Your task to perform on an android device: Search for Mexican restaurants on Maps Image 0: 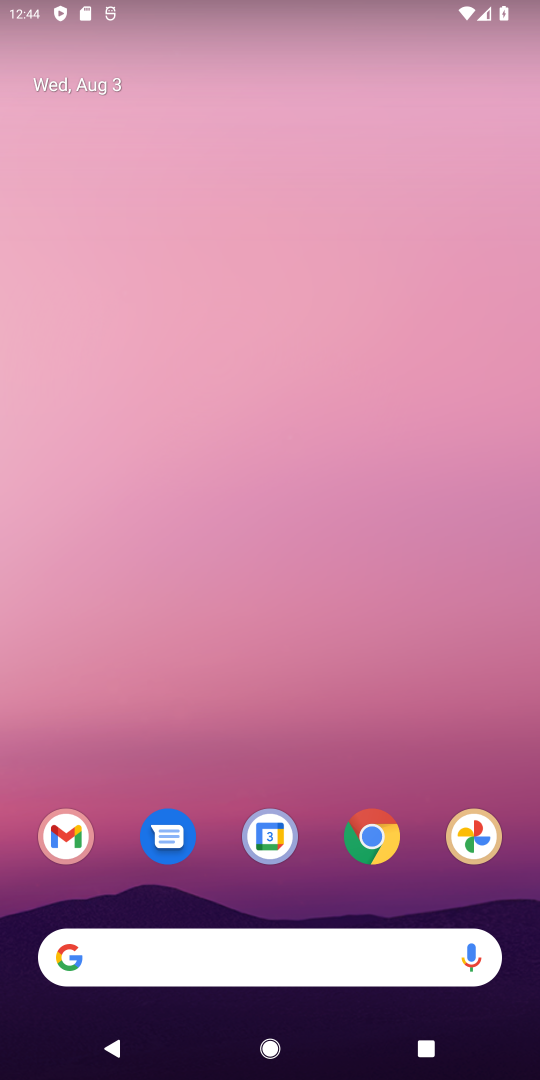
Step 0: drag from (238, 680) to (298, 279)
Your task to perform on an android device: Search for Mexican restaurants on Maps Image 1: 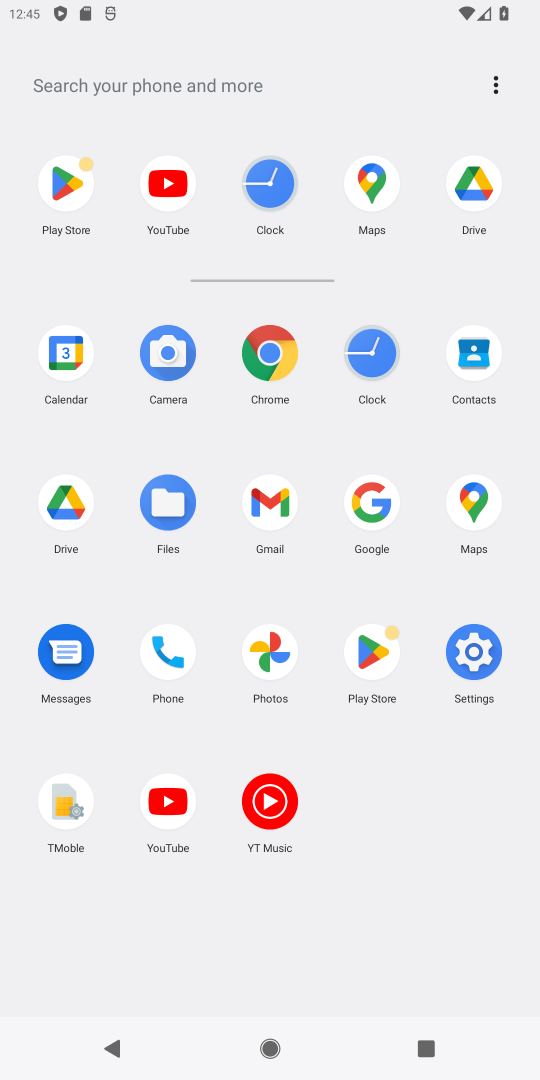
Step 1: click (471, 498)
Your task to perform on an android device: Search for Mexican restaurants on Maps Image 2: 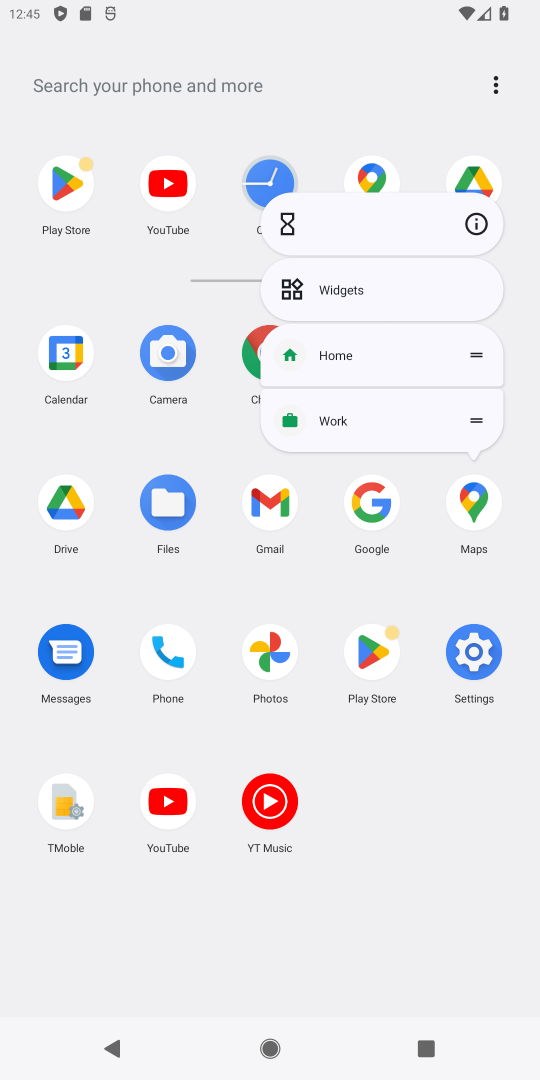
Step 2: click (471, 213)
Your task to perform on an android device: Search for Mexican restaurants on Maps Image 3: 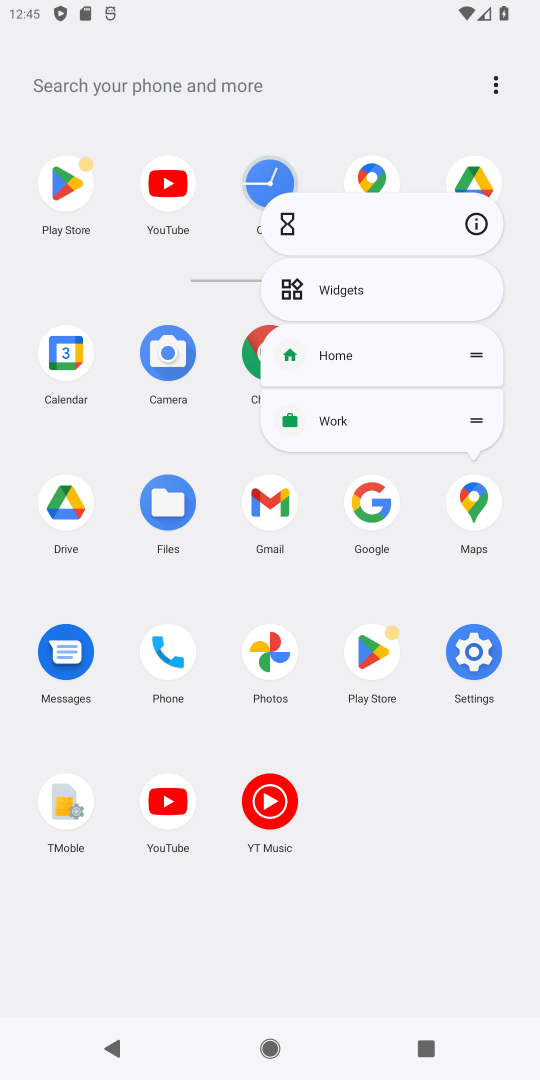
Step 3: click (468, 218)
Your task to perform on an android device: Search for Mexican restaurants on Maps Image 4: 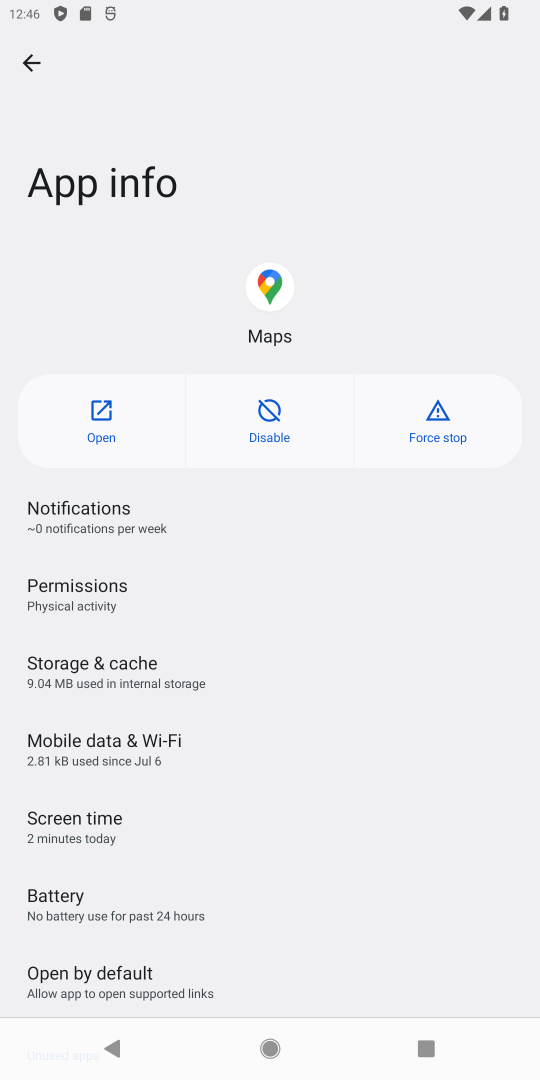
Step 4: click (120, 413)
Your task to perform on an android device: Search for Mexican restaurants on Maps Image 5: 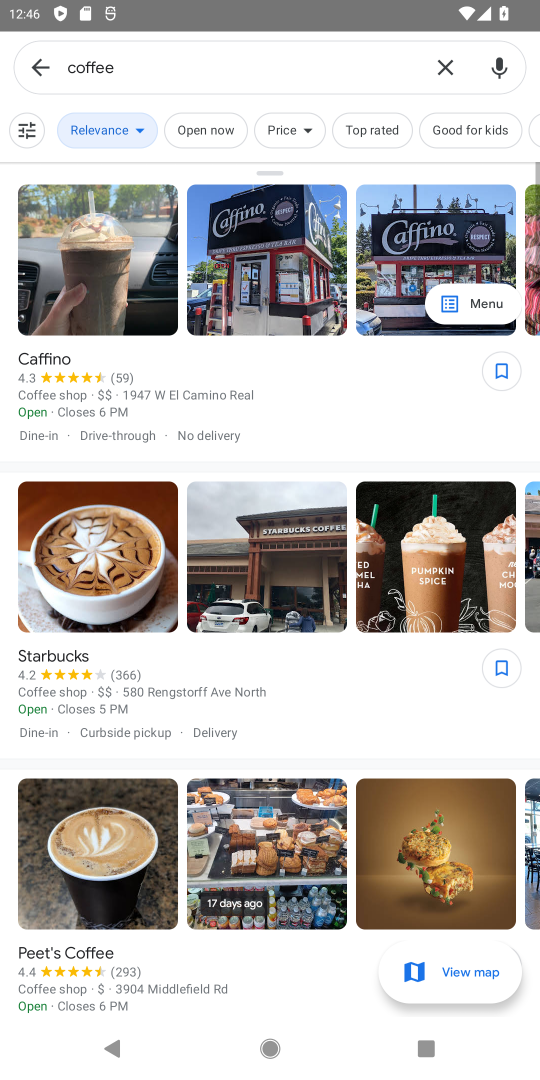
Step 5: drag from (315, 418) to (398, 810)
Your task to perform on an android device: Search for Mexican restaurants on Maps Image 6: 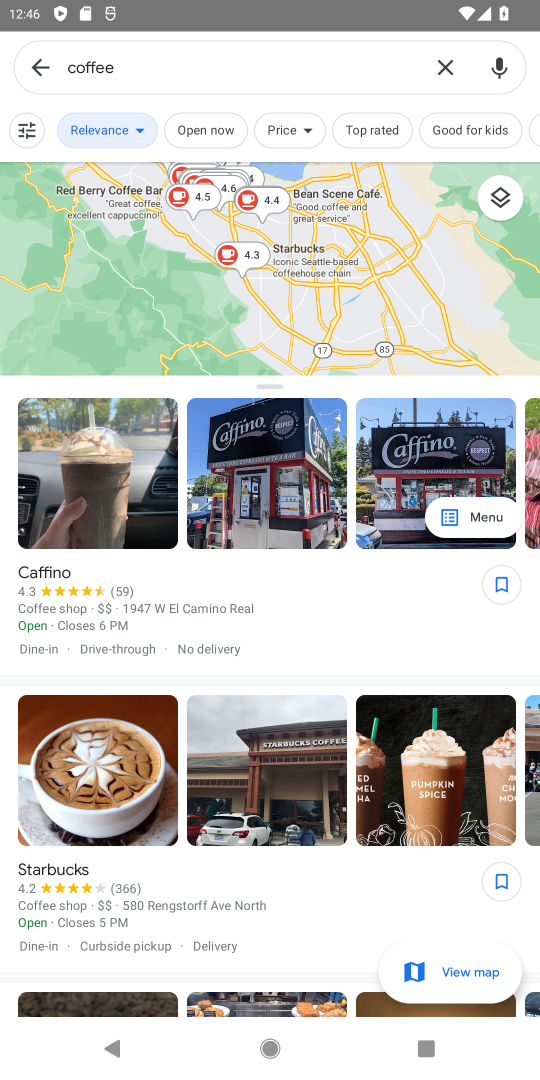
Step 6: click (439, 61)
Your task to perform on an android device: Search for Mexican restaurants on Maps Image 7: 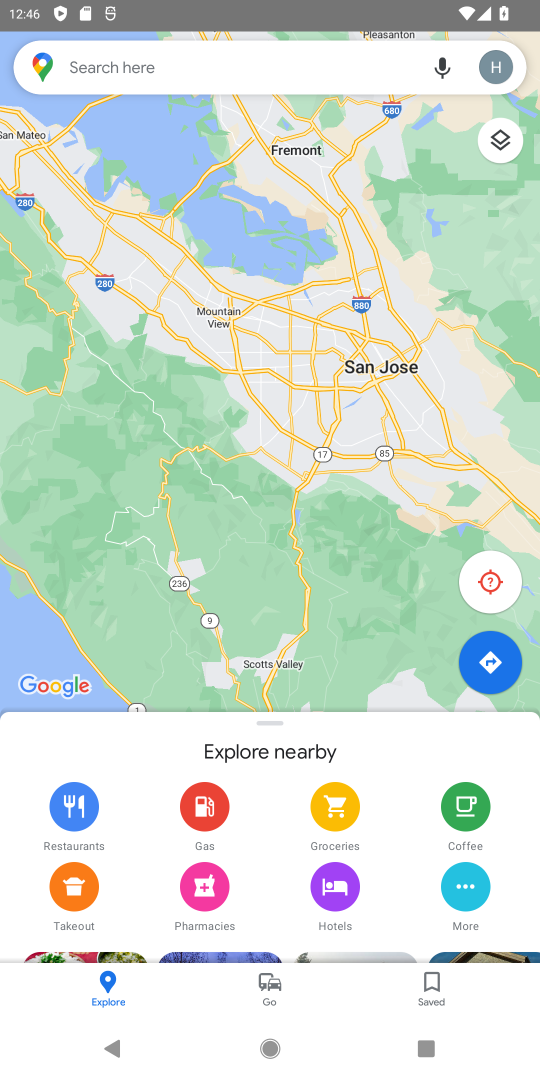
Step 7: click (140, 50)
Your task to perform on an android device: Search for Mexican restaurants on Maps Image 8: 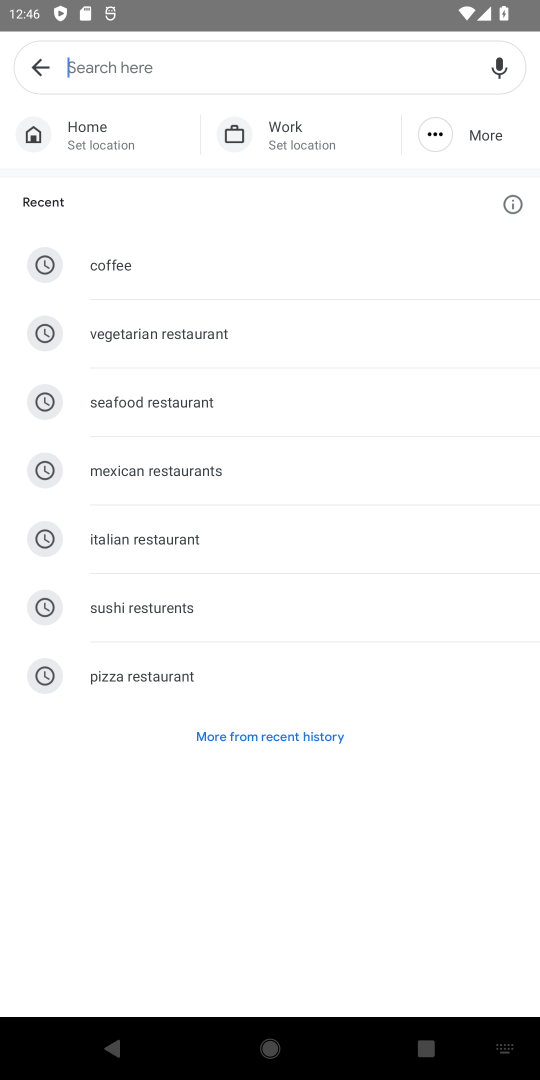
Step 8: type "Mexican restaurants"
Your task to perform on an android device: Search for Mexican restaurants on Maps Image 9: 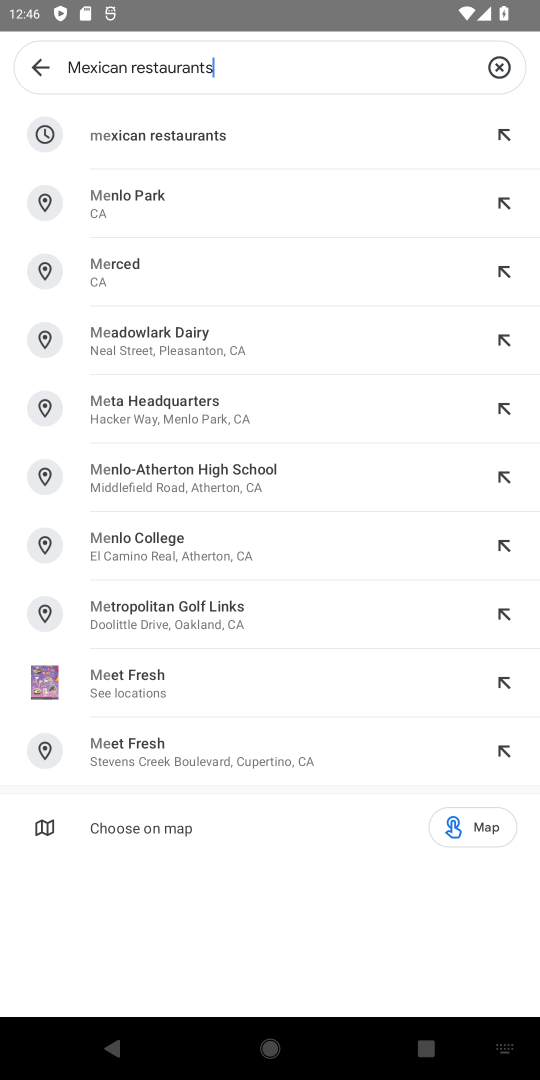
Step 9: type ""
Your task to perform on an android device: Search for Mexican restaurants on Maps Image 10: 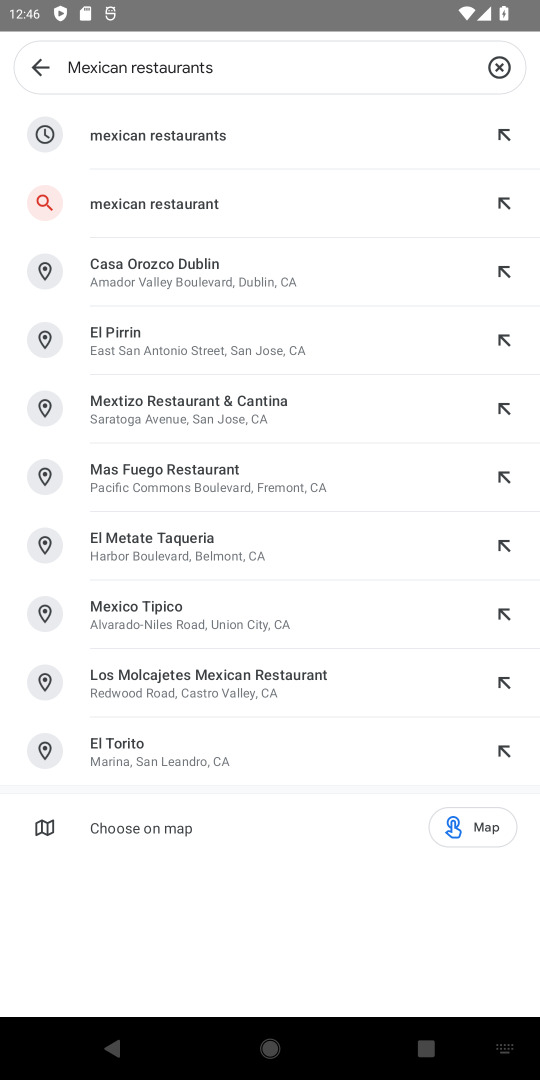
Step 10: click (161, 123)
Your task to perform on an android device: Search for Mexican restaurants on Maps Image 11: 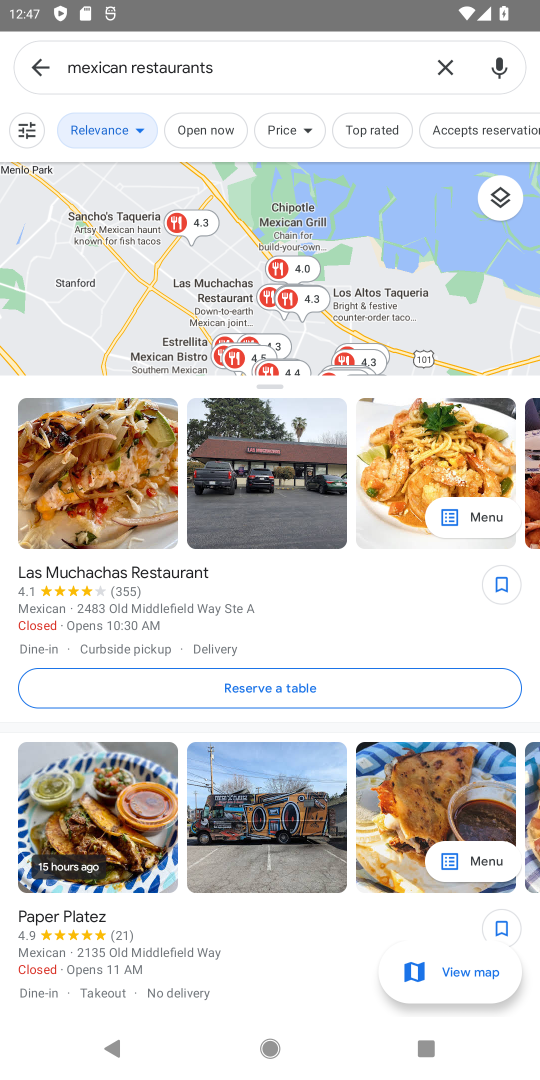
Step 11: task complete